Your task to perform on an android device: Open Google Chrome and click the shortcut for Amazon.com Image 0: 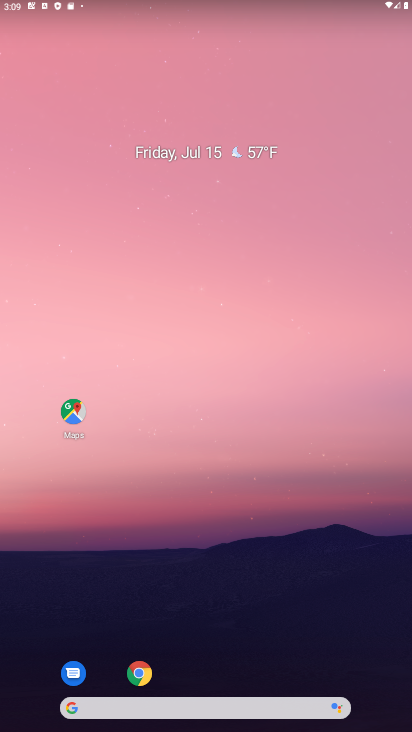
Step 0: click (142, 672)
Your task to perform on an android device: Open Google Chrome and click the shortcut for Amazon.com Image 1: 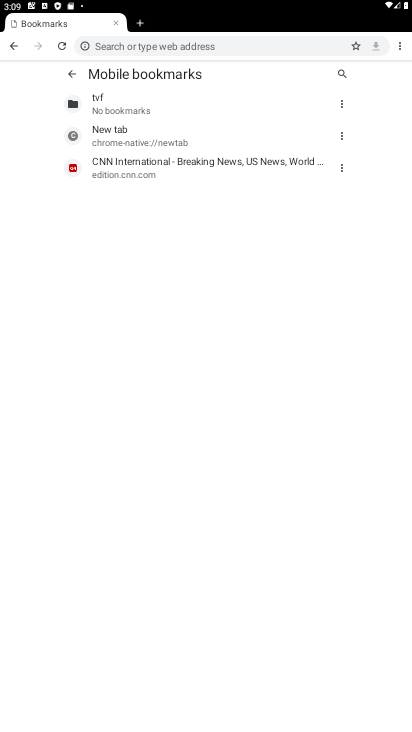
Step 1: click (401, 46)
Your task to perform on an android device: Open Google Chrome and click the shortcut for Amazon.com Image 2: 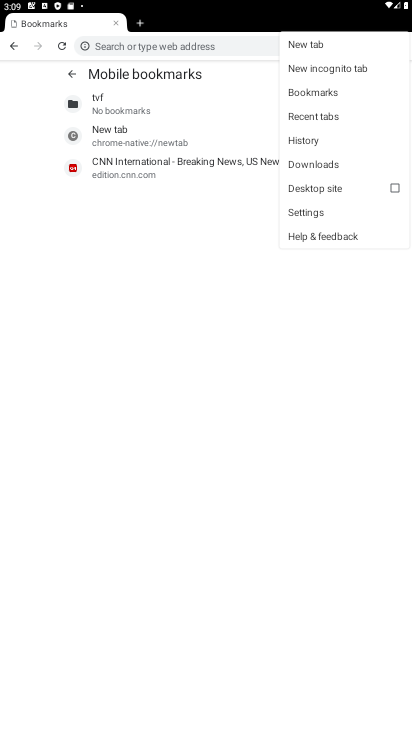
Step 2: click (204, 293)
Your task to perform on an android device: Open Google Chrome and click the shortcut for Amazon.com Image 3: 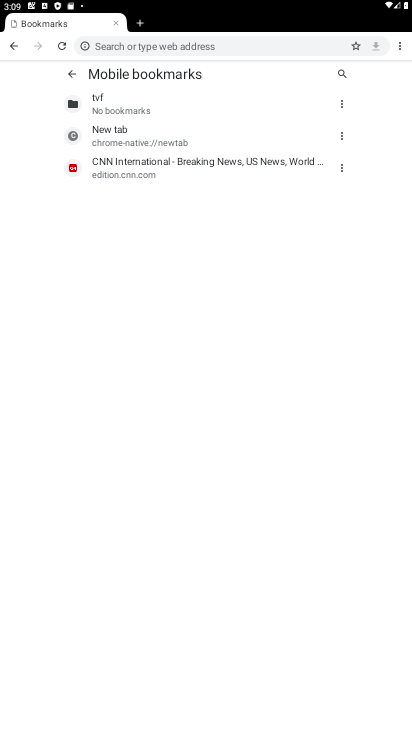
Step 3: click (144, 28)
Your task to perform on an android device: Open Google Chrome and click the shortcut for Amazon.com Image 4: 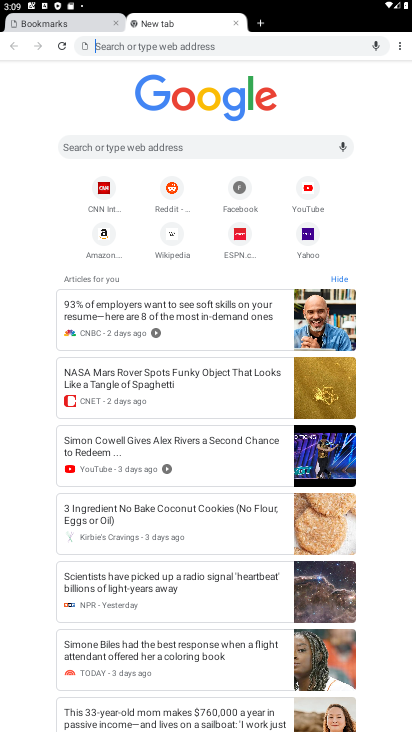
Step 4: click (105, 229)
Your task to perform on an android device: Open Google Chrome and click the shortcut for Amazon.com Image 5: 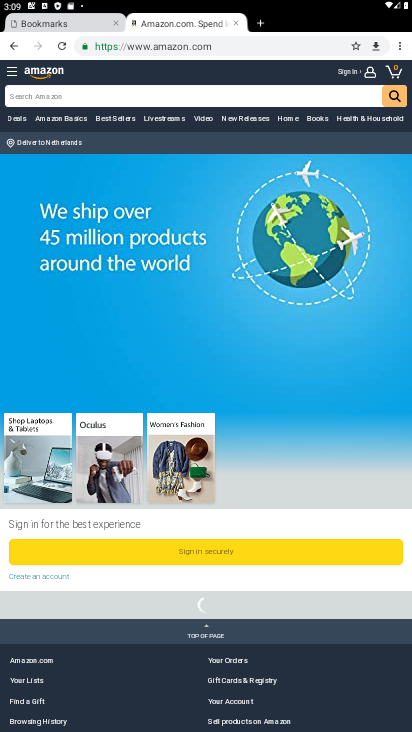
Step 5: task complete